Your task to perform on an android device: uninstall "The Home Depot" Image 0: 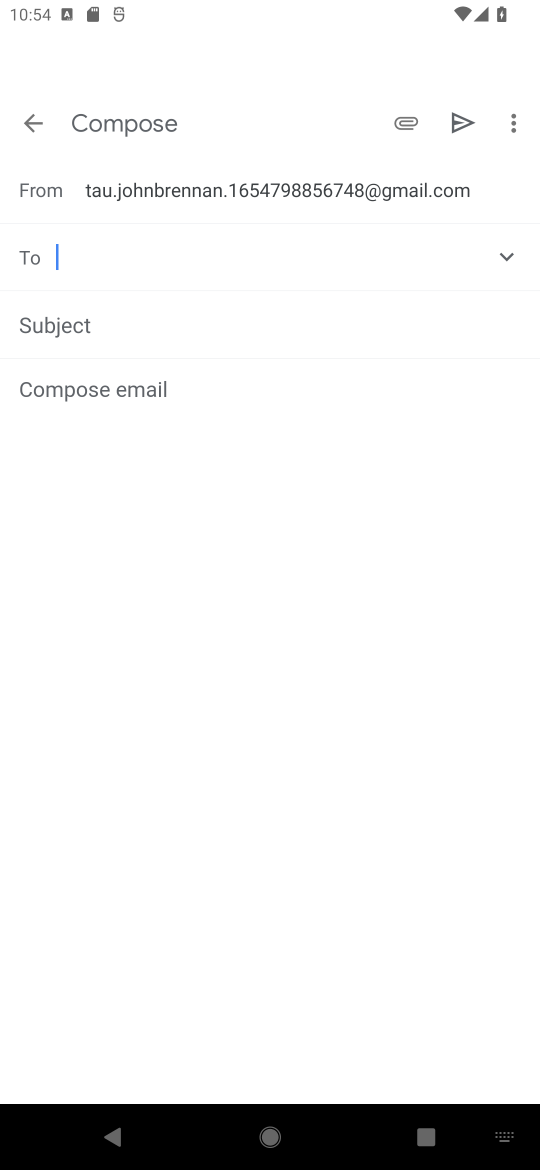
Step 0: press home button
Your task to perform on an android device: uninstall "The Home Depot" Image 1: 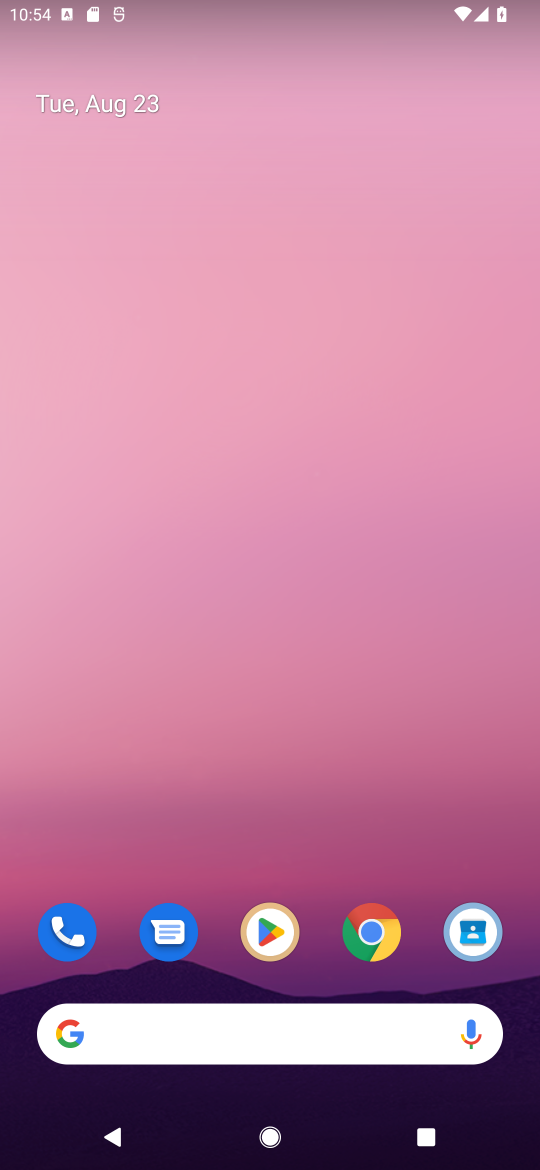
Step 1: click (257, 915)
Your task to perform on an android device: uninstall "The Home Depot" Image 2: 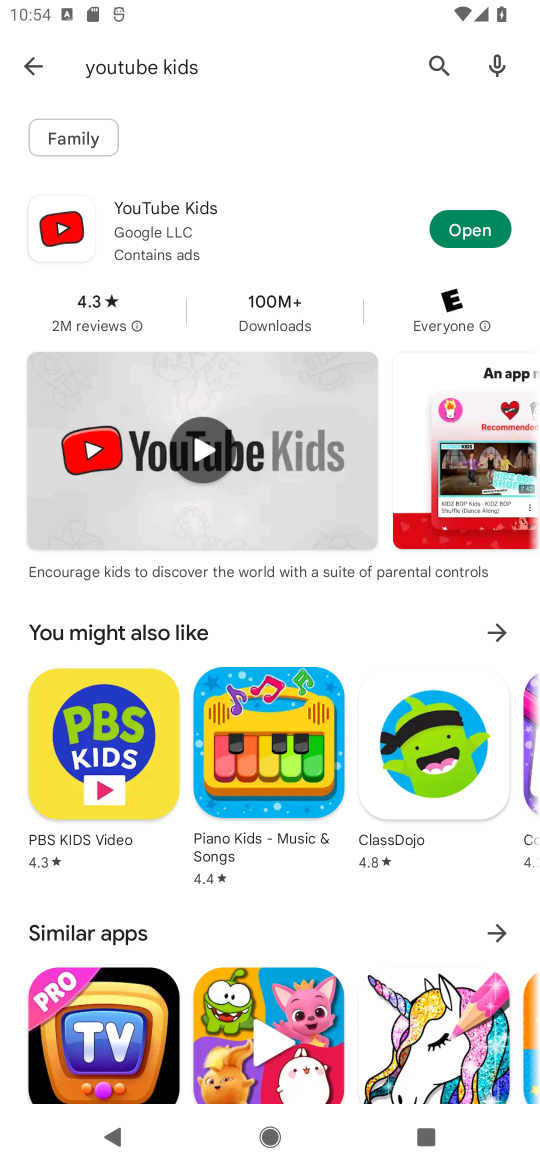
Step 2: click (438, 62)
Your task to perform on an android device: uninstall "The Home Depot" Image 3: 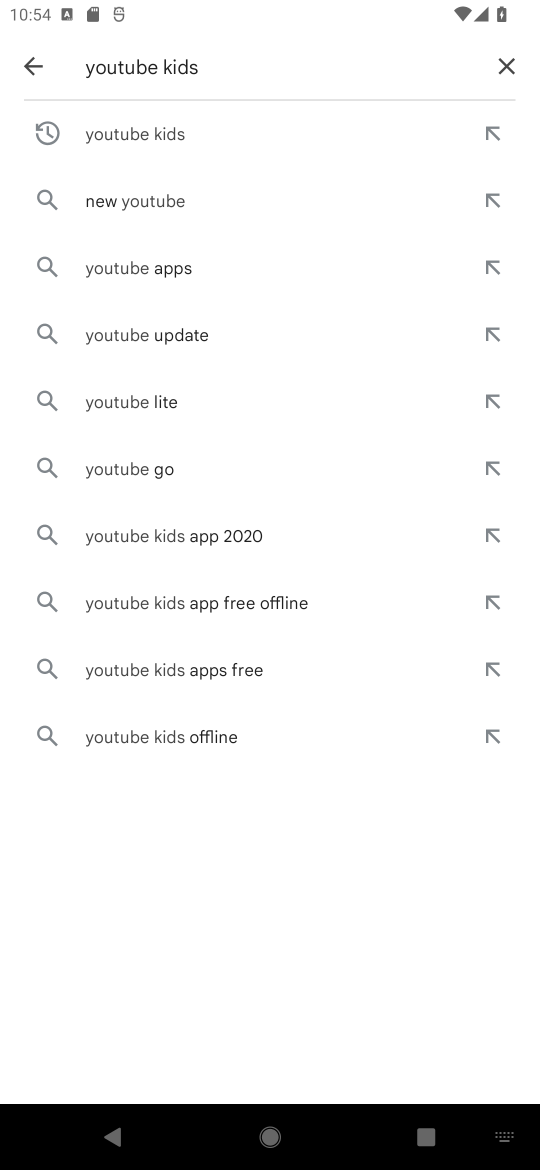
Step 3: click (501, 60)
Your task to perform on an android device: uninstall "The Home Depot" Image 4: 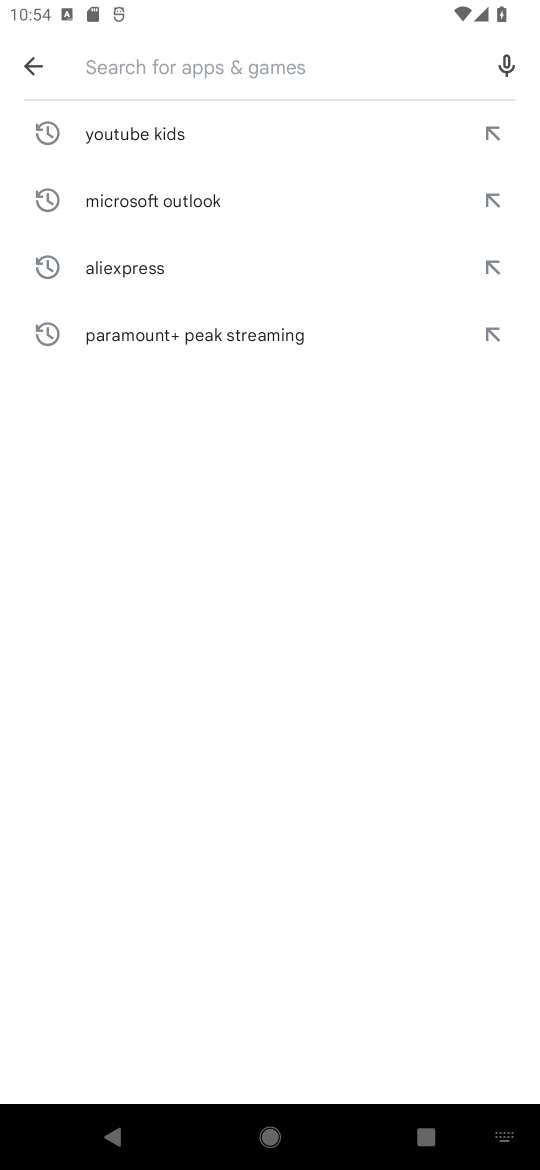
Step 4: click (190, 64)
Your task to perform on an android device: uninstall "The Home Depot" Image 5: 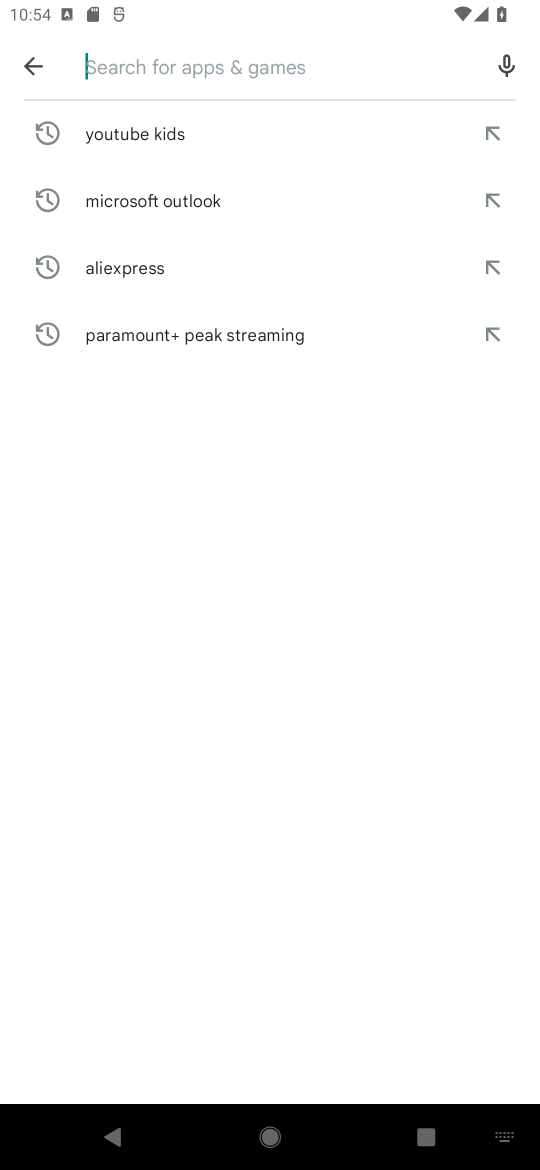
Step 5: type "The Home Depot"
Your task to perform on an android device: uninstall "The Home Depot" Image 6: 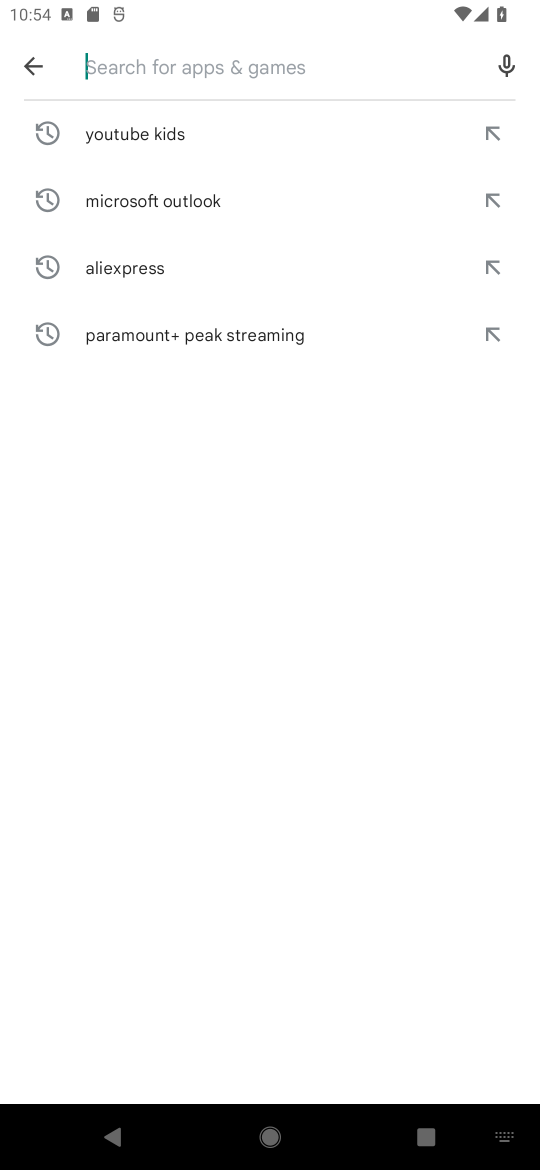
Step 6: click (239, 784)
Your task to perform on an android device: uninstall "The Home Depot" Image 7: 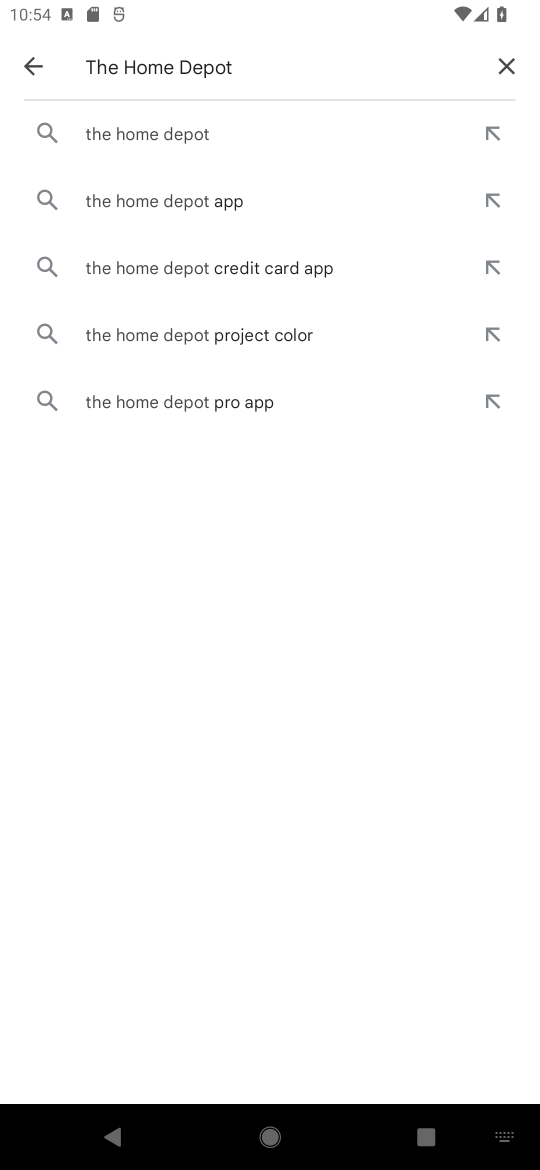
Step 7: click (175, 130)
Your task to perform on an android device: uninstall "The Home Depot" Image 8: 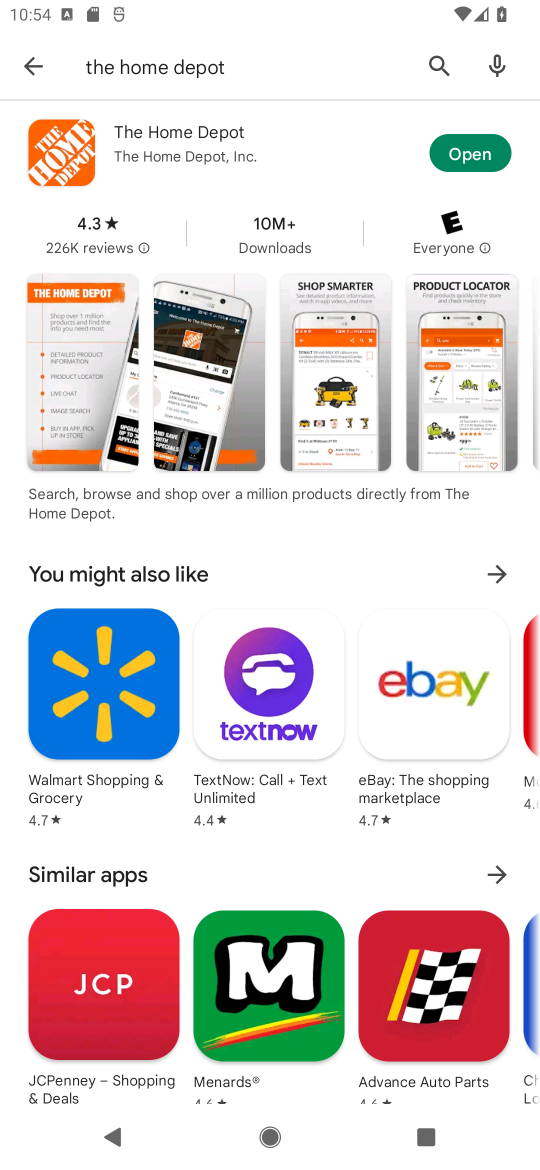
Step 8: click (175, 130)
Your task to perform on an android device: uninstall "The Home Depot" Image 9: 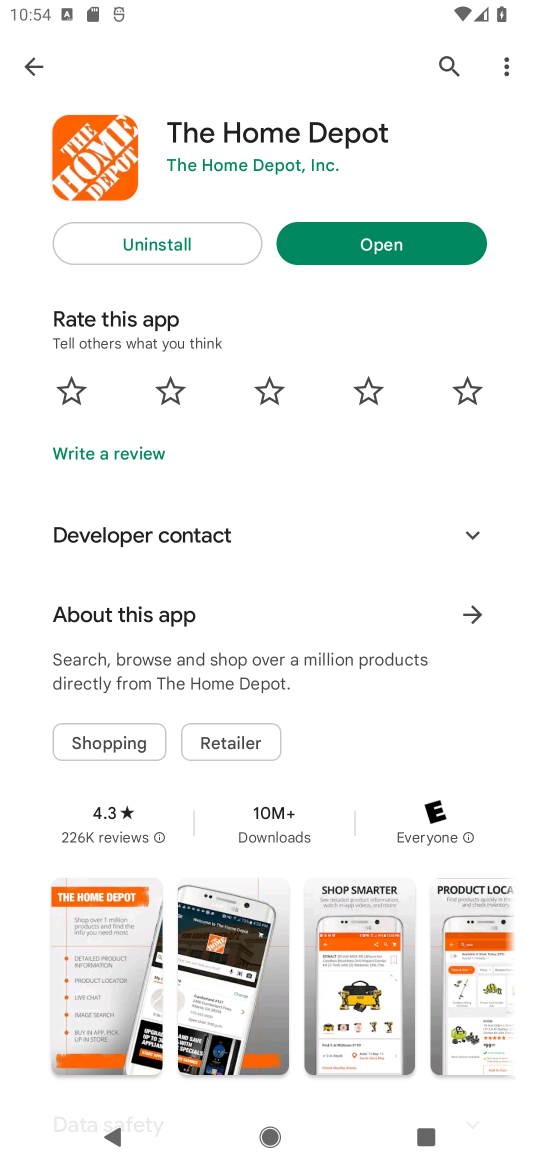
Step 9: click (194, 238)
Your task to perform on an android device: uninstall "The Home Depot" Image 10: 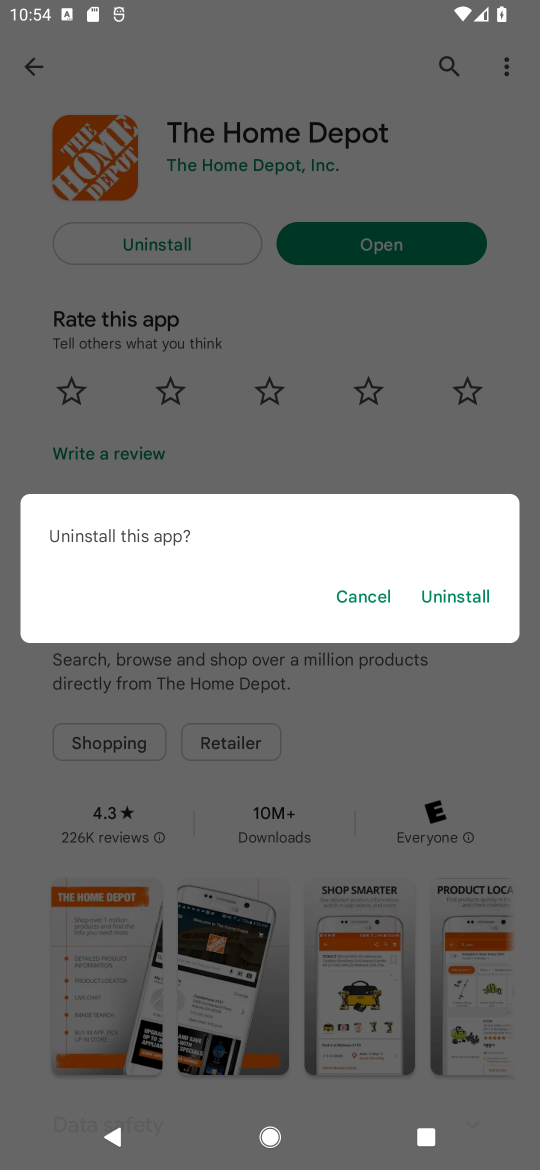
Step 10: click (452, 591)
Your task to perform on an android device: uninstall "The Home Depot" Image 11: 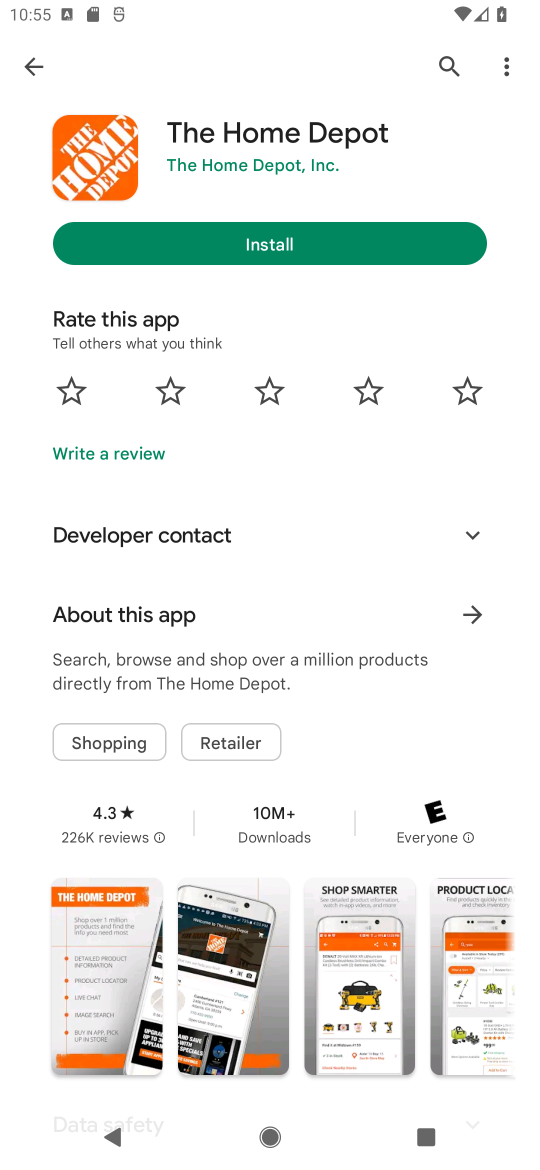
Step 11: task complete